Your task to perform on an android device: open app "PUBG MOBILE" (install if not already installed) Image 0: 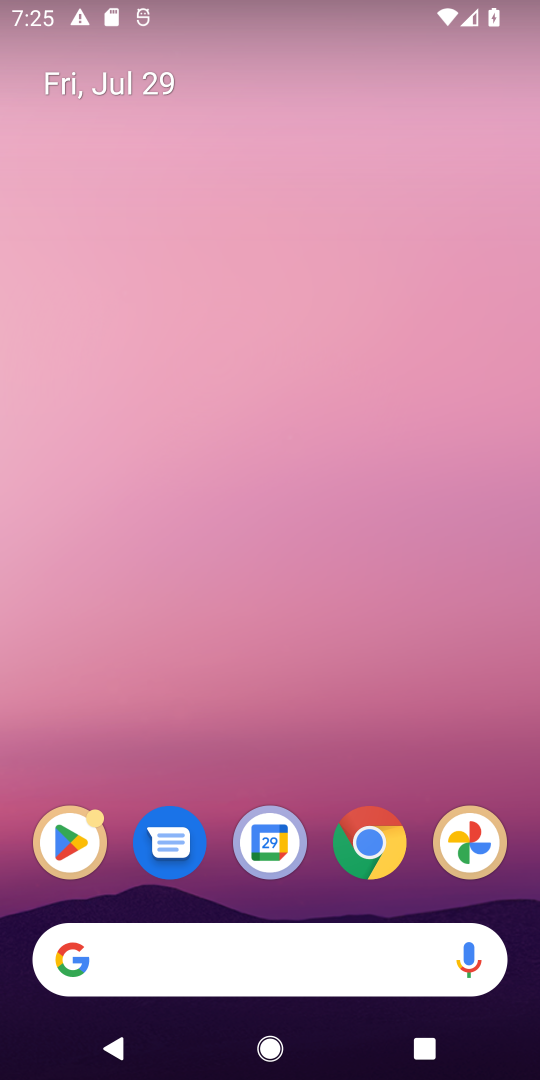
Step 0: drag from (318, 997) to (217, 407)
Your task to perform on an android device: open app "PUBG MOBILE" (install if not already installed) Image 1: 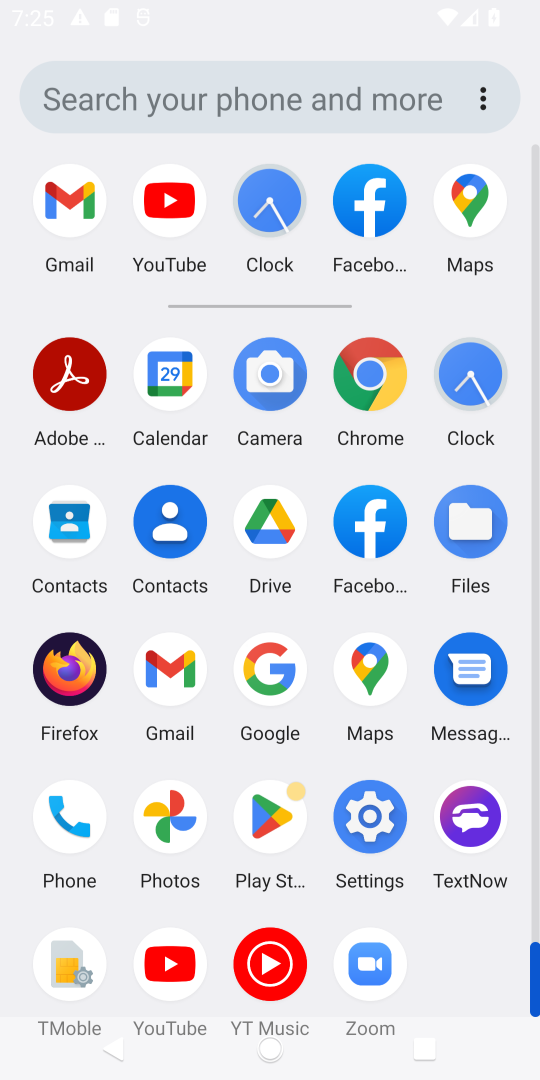
Step 1: drag from (302, 828) to (268, 386)
Your task to perform on an android device: open app "PUBG MOBILE" (install if not already installed) Image 2: 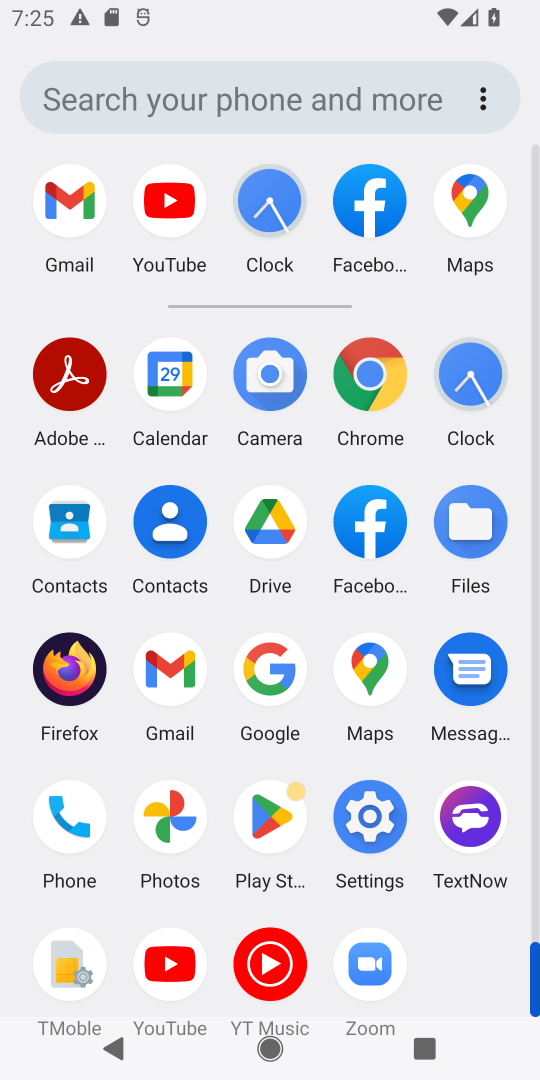
Step 2: click (264, 826)
Your task to perform on an android device: open app "PUBG MOBILE" (install if not already installed) Image 3: 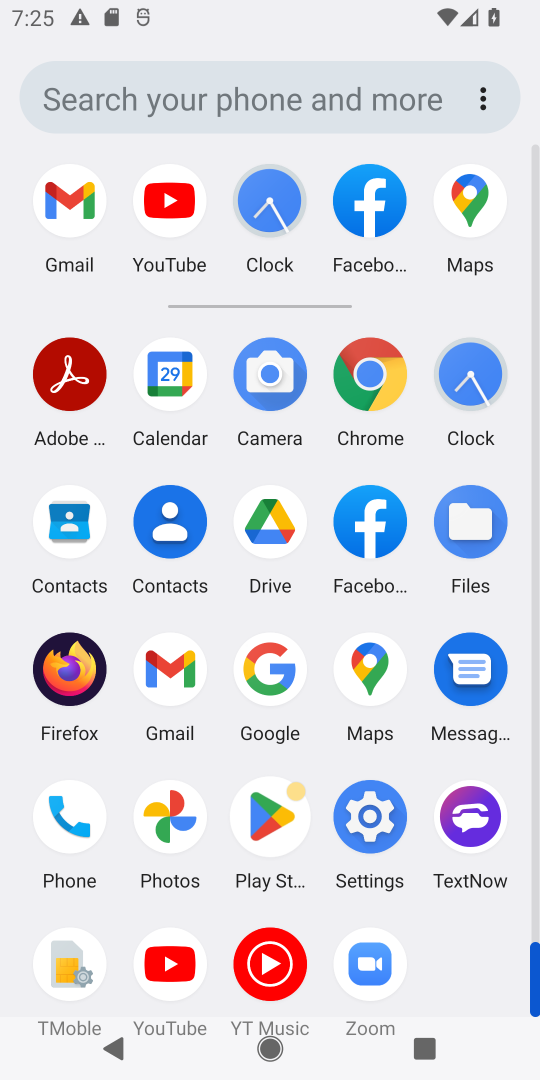
Step 3: click (266, 826)
Your task to perform on an android device: open app "PUBG MOBILE" (install if not already installed) Image 4: 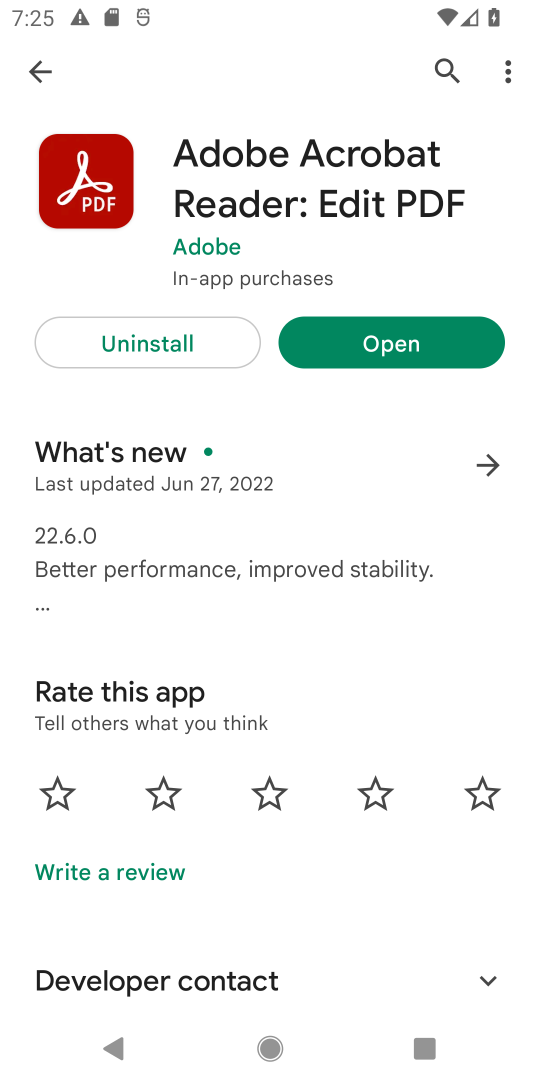
Step 4: click (31, 74)
Your task to perform on an android device: open app "PUBG MOBILE" (install if not already installed) Image 5: 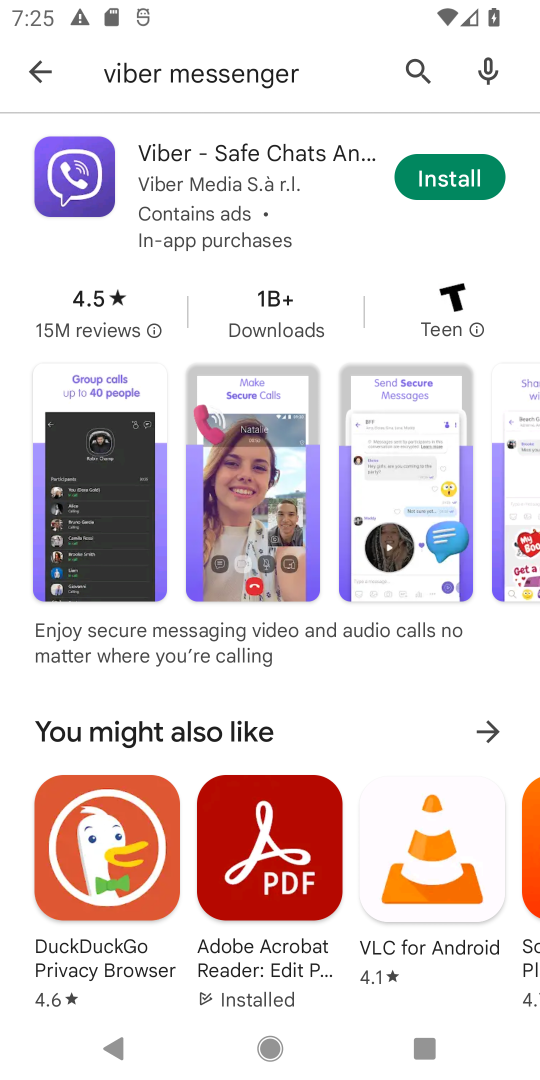
Step 5: click (39, 64)
Your task to perform on an android device: open app "PUBG MOBILE" (install if not already installed) Image 6: 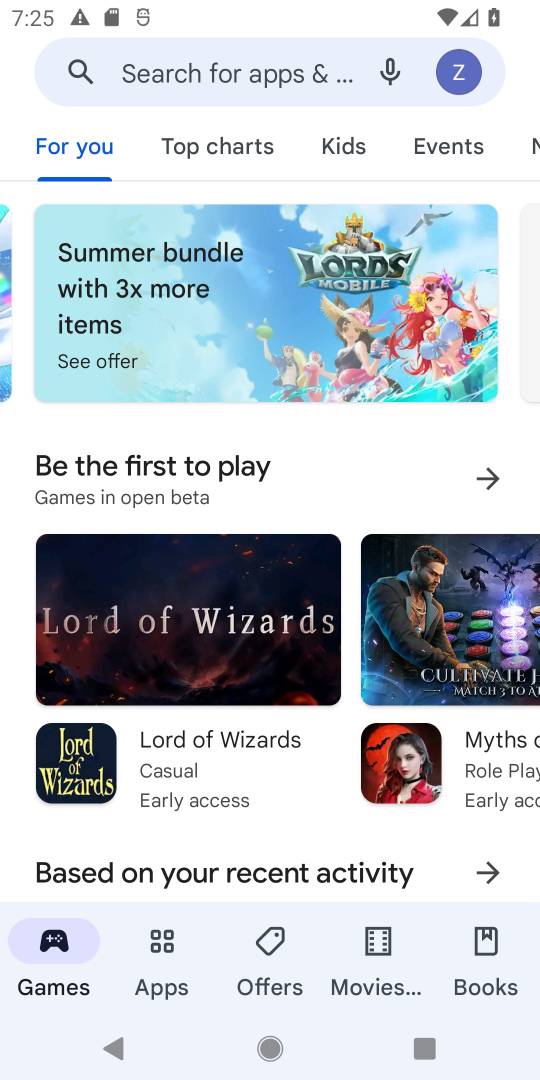
Step 6: click (147, 73)
Your task to perform on an android device: open app "PUBG MOBILE" (install if not already installed) Image 7: 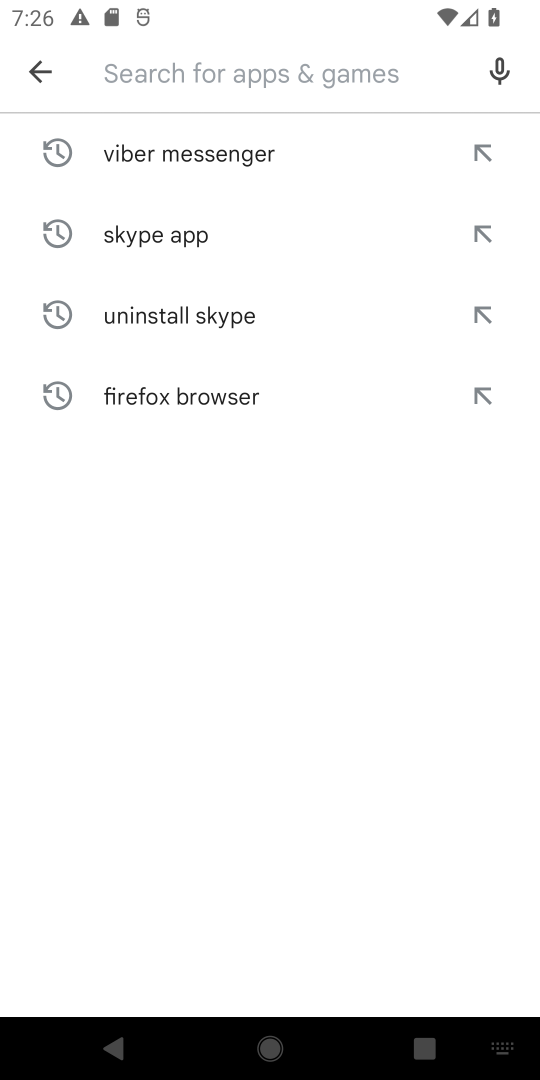
Step 7: type "PUBG MOBILE"
Your task to perform on an android device: open app "PUBG MOBILE" (install if not already installed) Image 8: 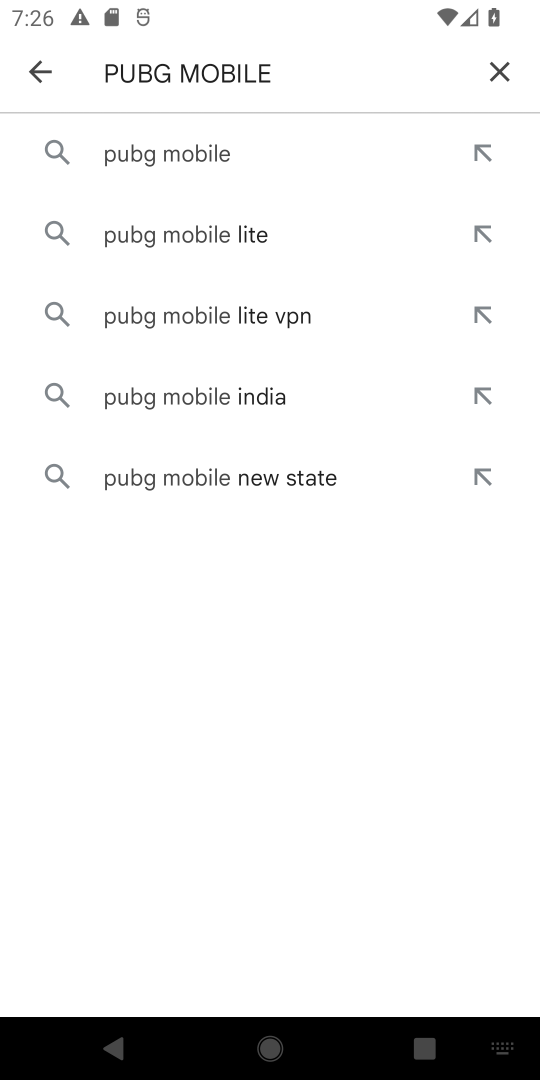
Step 8: click (148, 163)
Your task to perform on an android device: open app "PUBG MOBILE" (install if not already installed) Image 9: 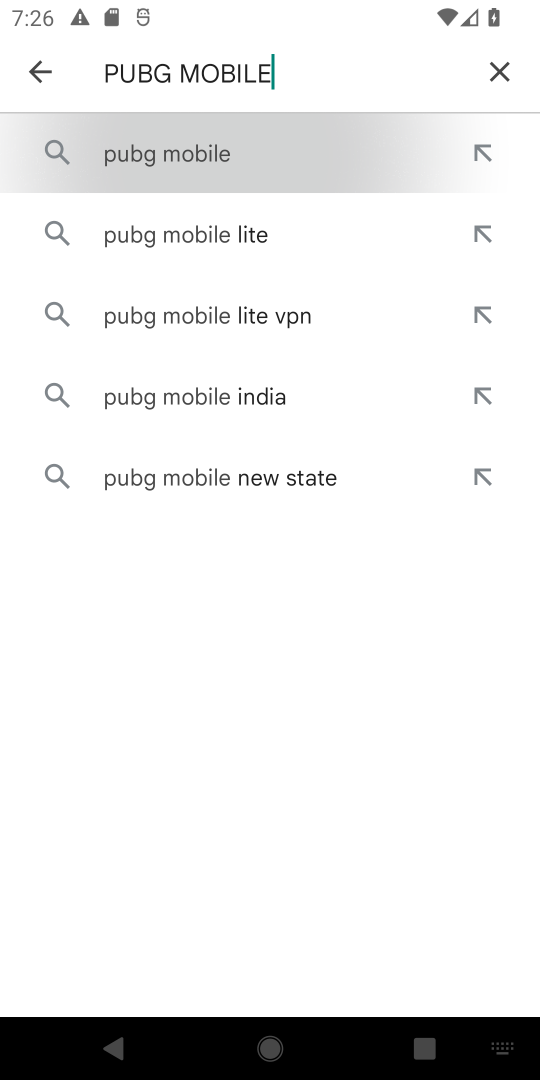
Step 9: click (150, 165)
Your task to perform on an android device: open app "PUBG MOBILE" (install if not already installed) Image 10: 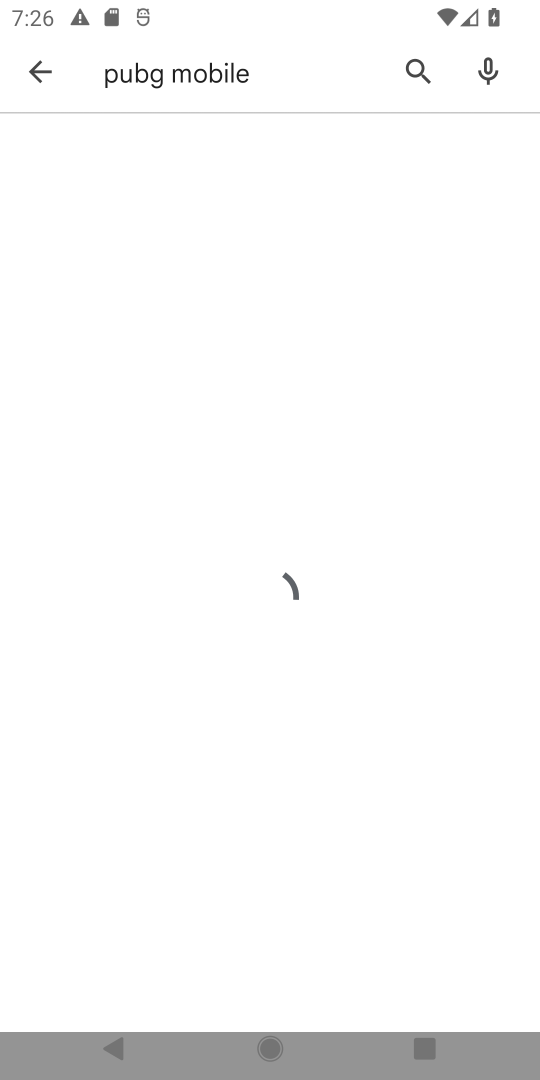
Step 10: click (151, 163)
Your task to perform on an android device: open app "PUBG MOBILE" (install if not already installed) Image 11: 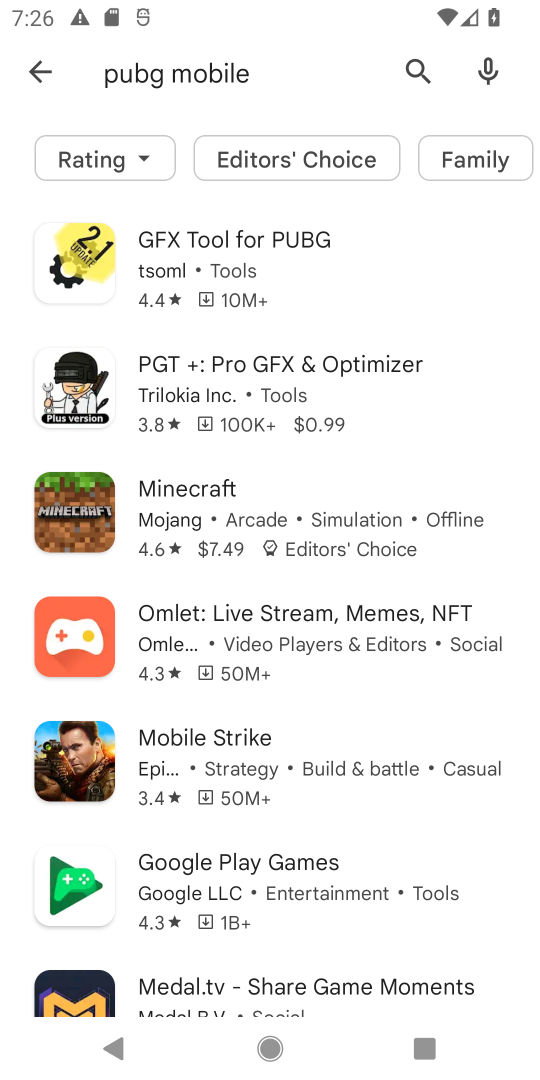
Step 11: task complete